Your task to perform on an android device: turn on bluetooth scan Image 0: 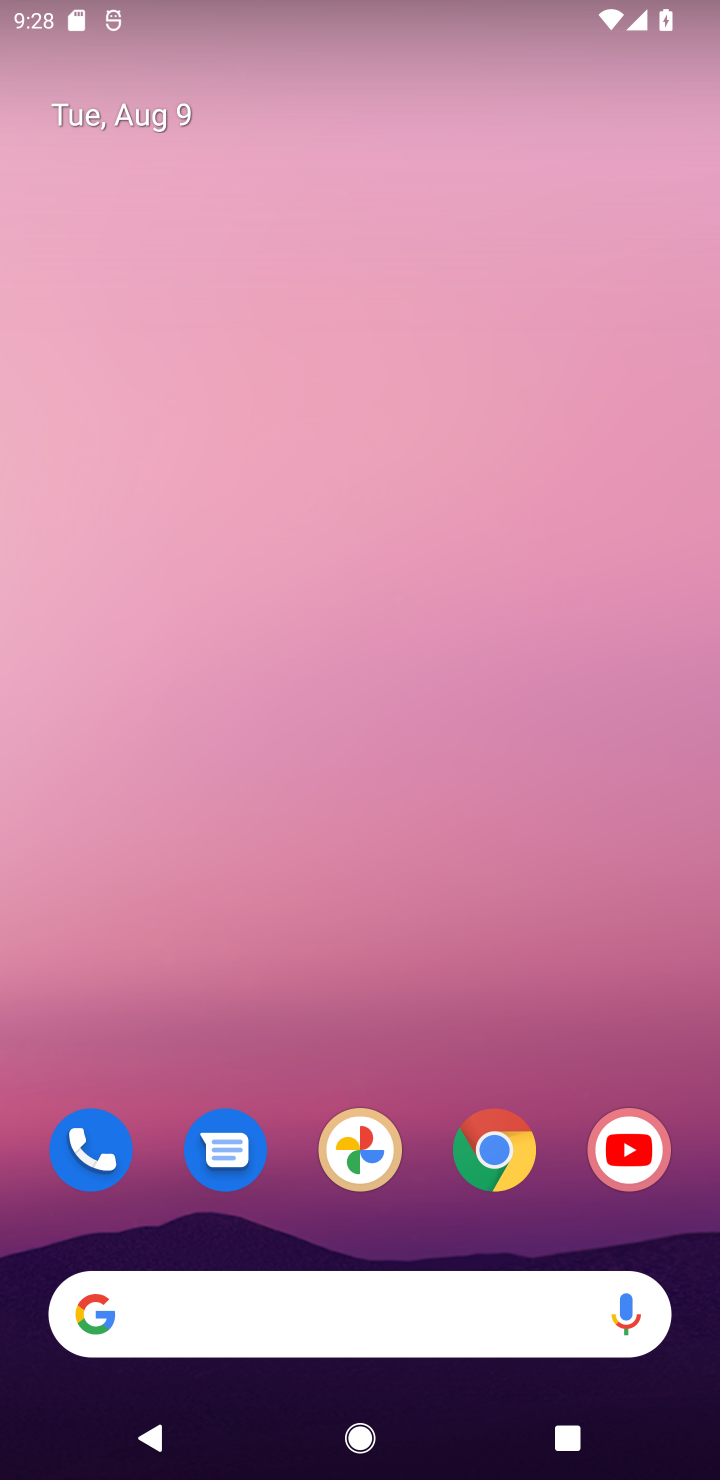
Step 0: drag from (441, 1077) to (463, 49)
Your task to perform on an android device: turn on bluetooth scan Image 1: 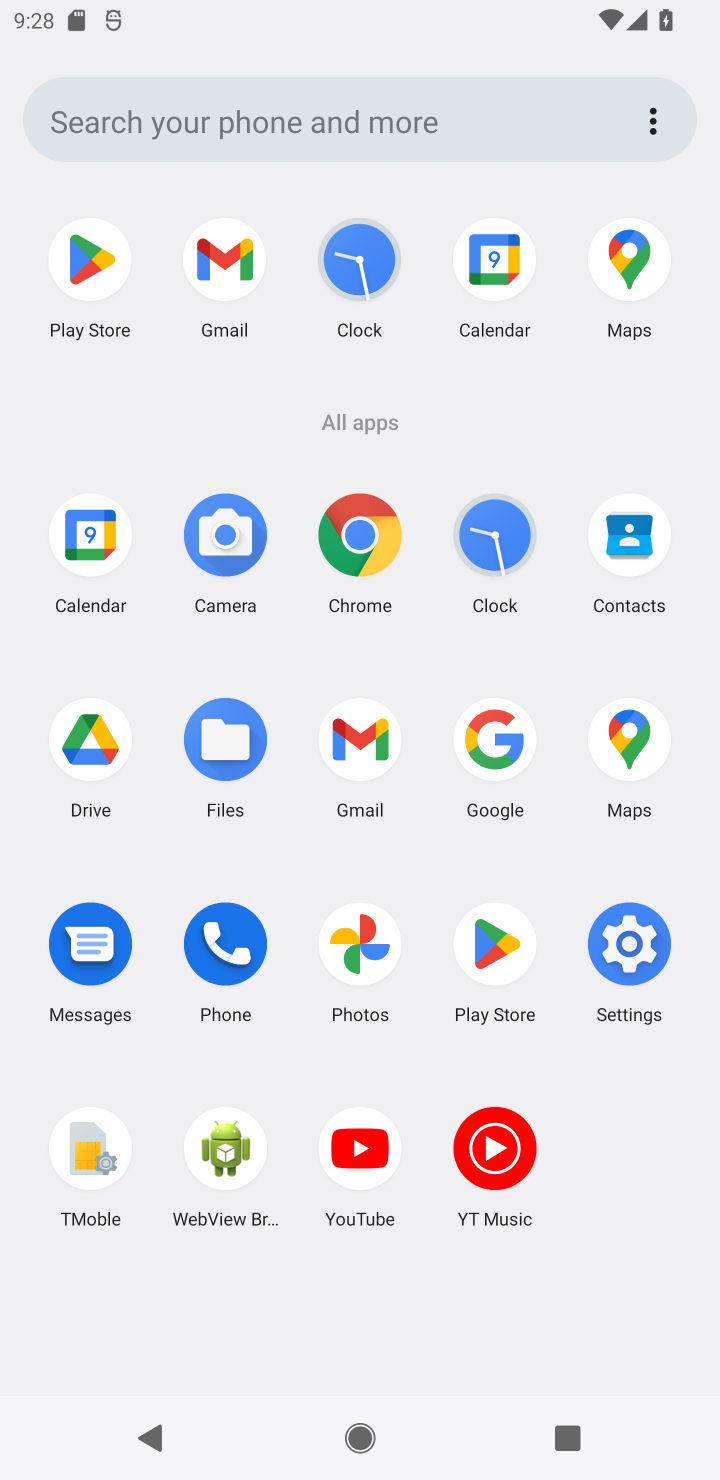
Step 1: click (631, 931)
Your task to perform on an android device: turn on bluetooth scan Image 2: 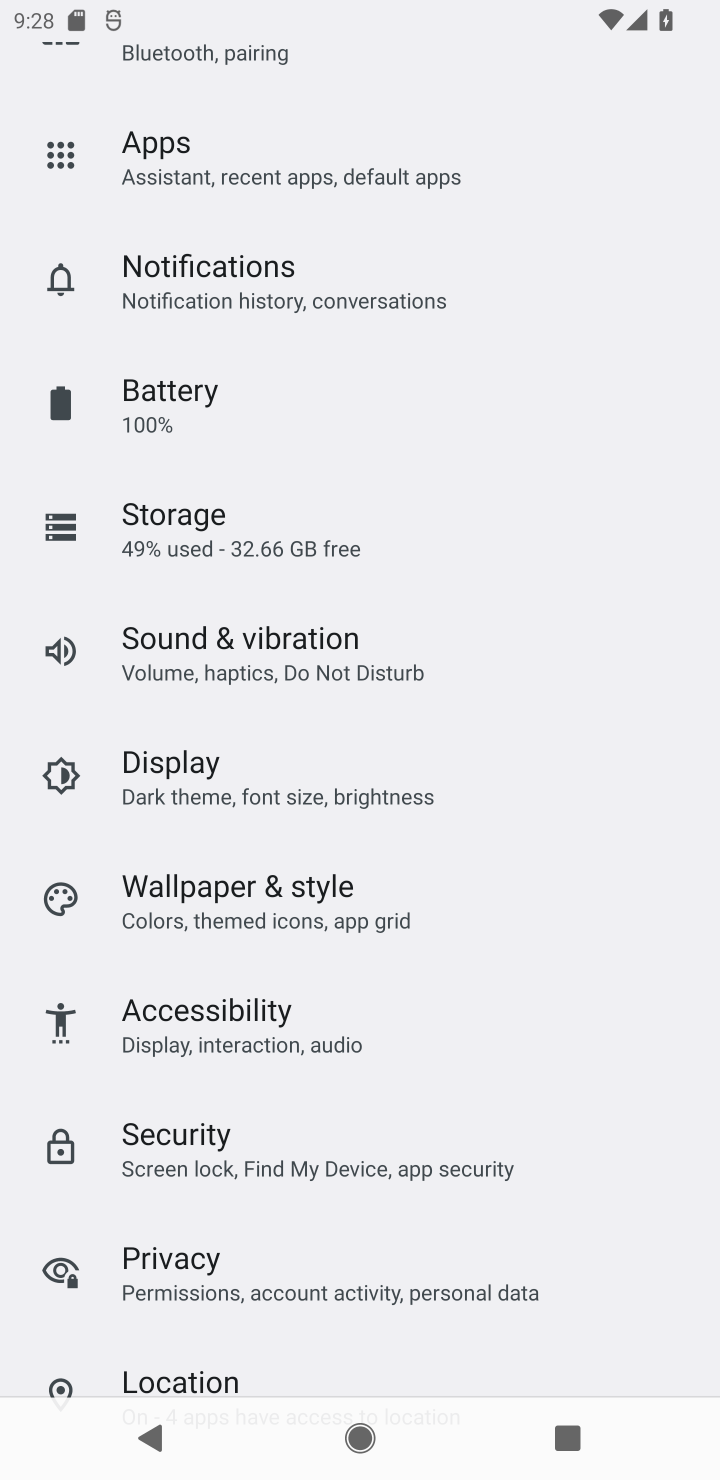
Step 2: drag from (413, 1091) to (342, 691)
Your task to perform on an android device: turn on bluetooth scan Image 3: 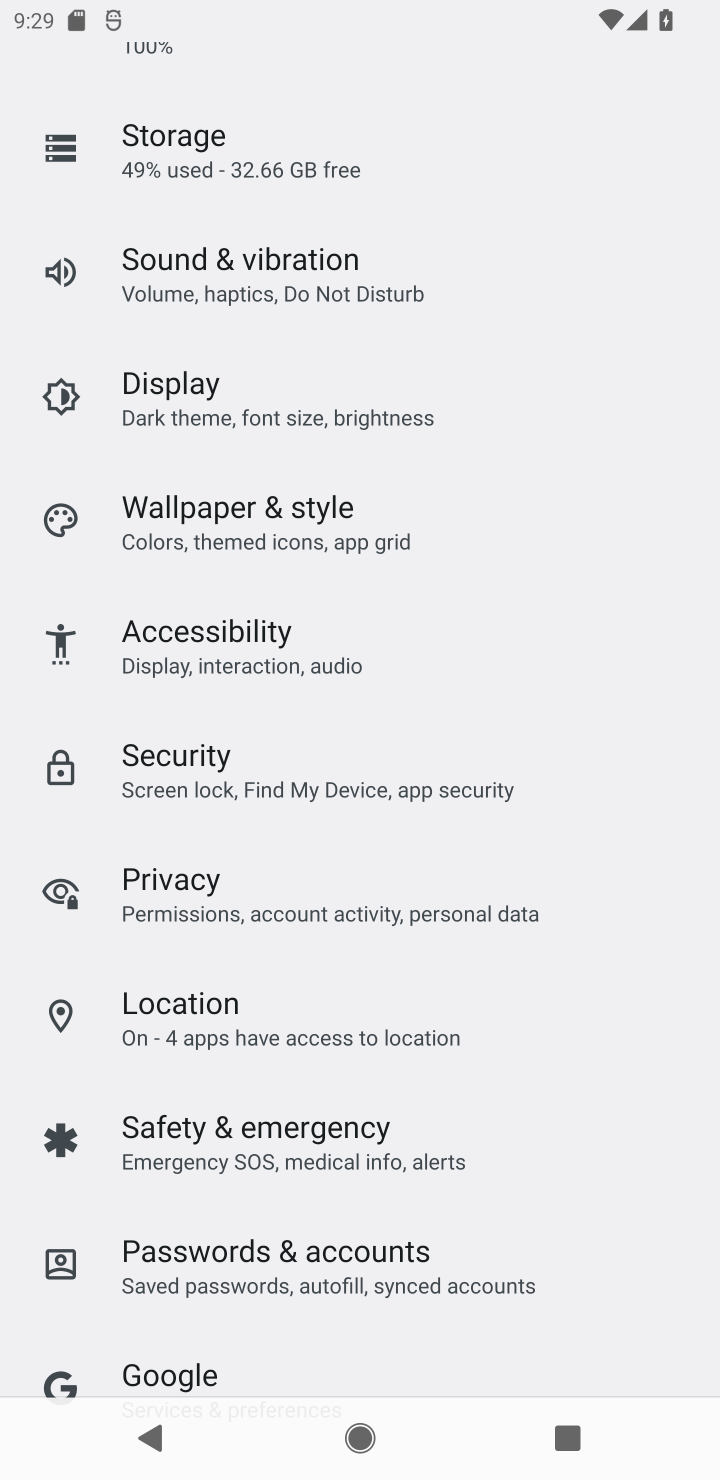
Step 3: click (353, 1016)
Your task to perform on an android device: turn on bluetooth scan Image 4: 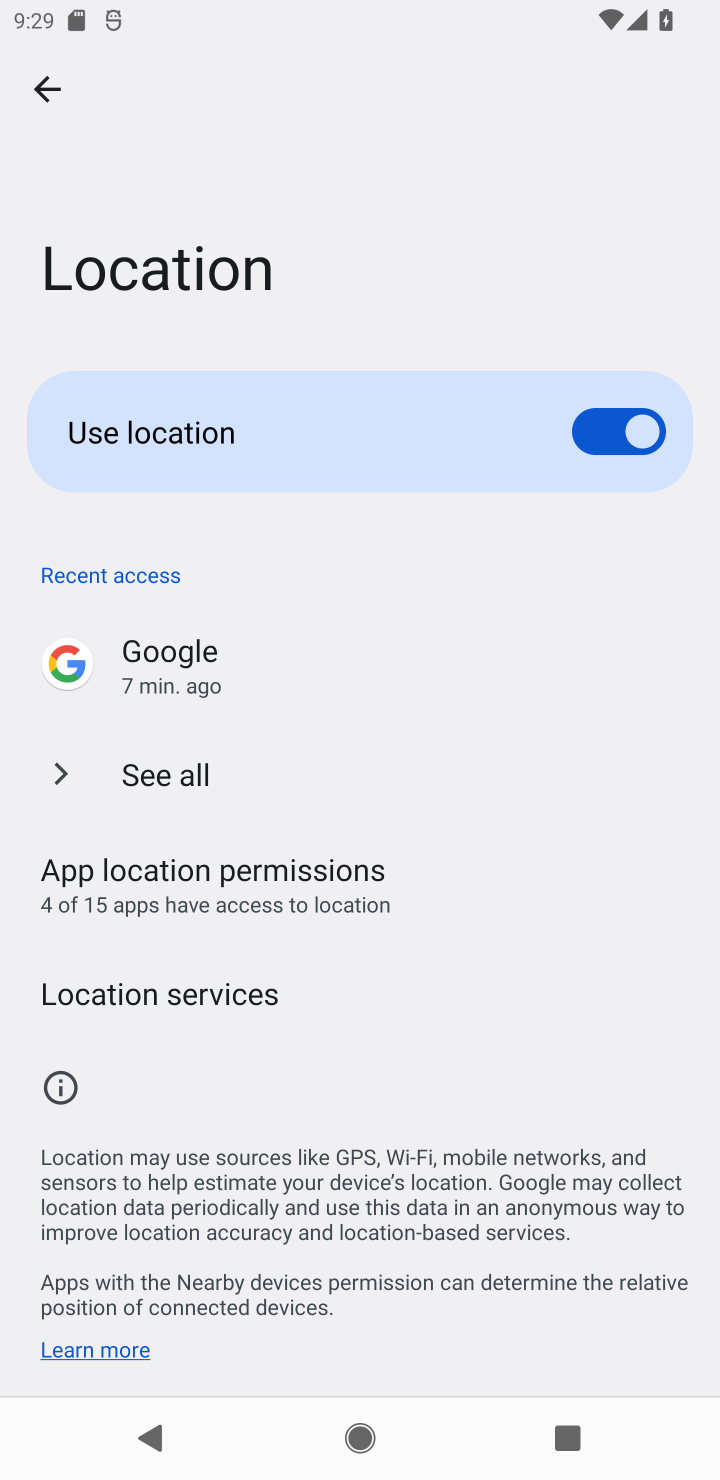
Step 4: click (238, 989)
Your task to perform on an android device: turn on bluetooth scan Image 5: 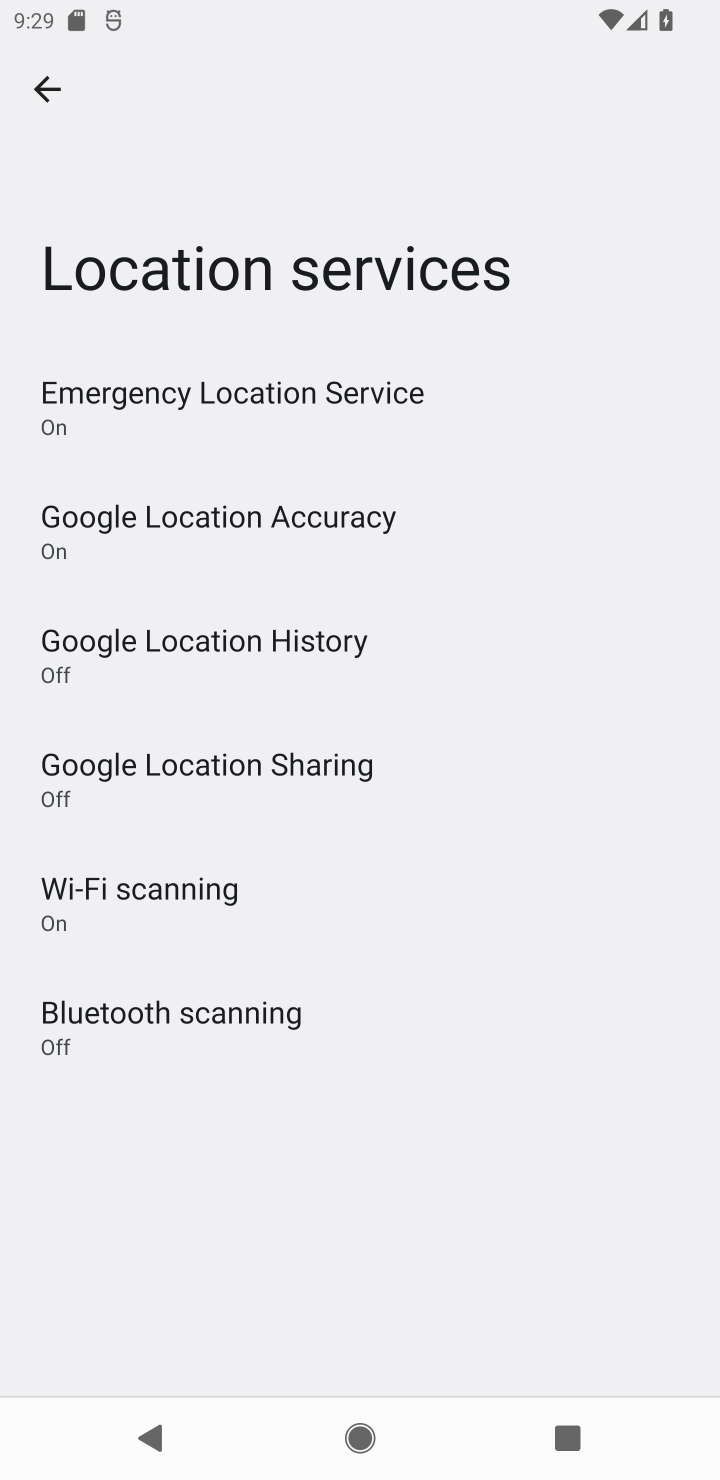
Step 5: click (378, 1016)
Your task to perform on an android device: turn on bluetooth scan Image 6: 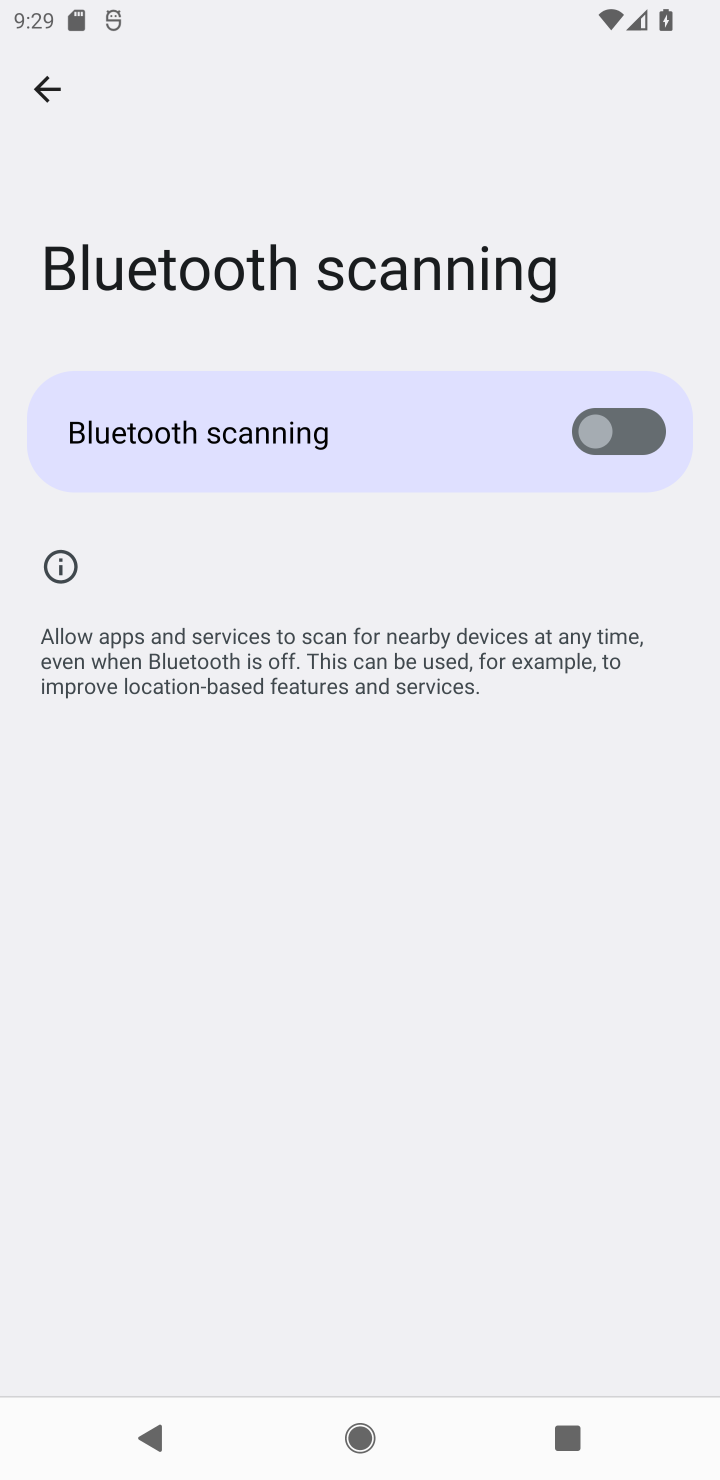
Step 6: click (610, 433)
Your task to perform on an android device: turn on bluetooth scan Image 7: 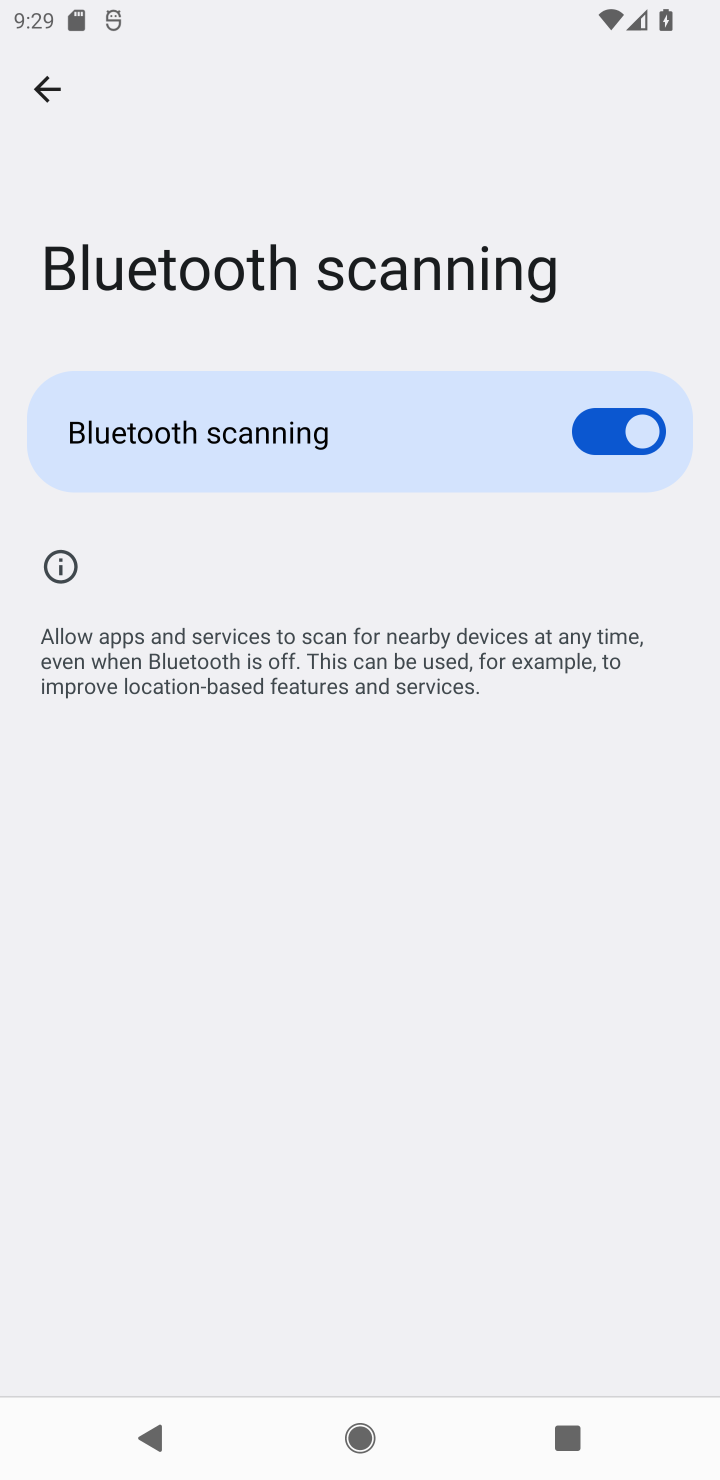
Step 7: task complete